Your task to perform on an android device: toggle translation in the chrome app Image 0: 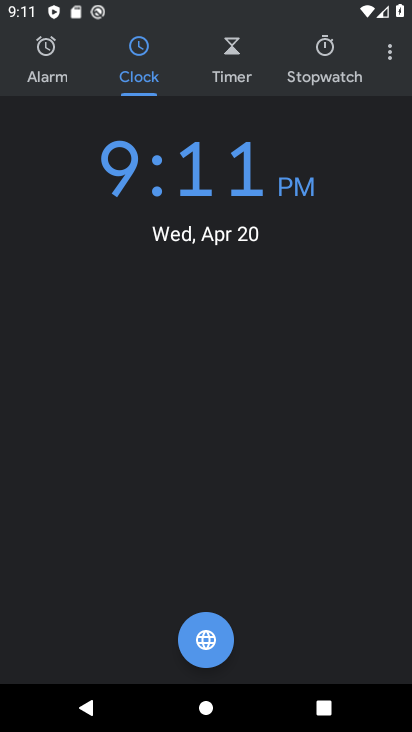
Step 0: press home button
Your task to perform on an android device: toggle translation in the chrome app Image 1: 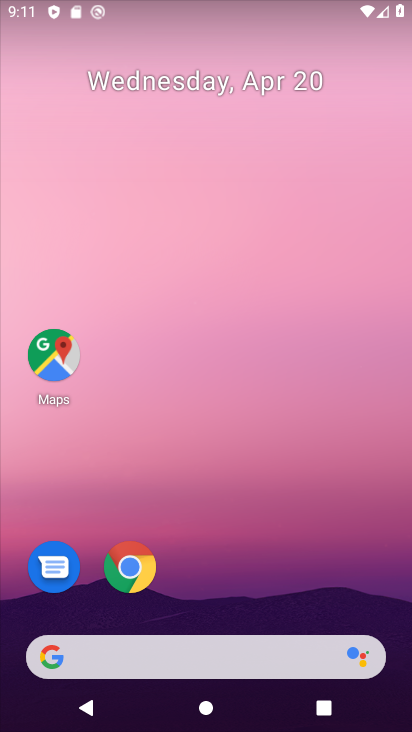
Step 1: drag from (309, 584) to (335, 141)
Your task to perform on an android device: toggle translation in the chrome app Image 2: 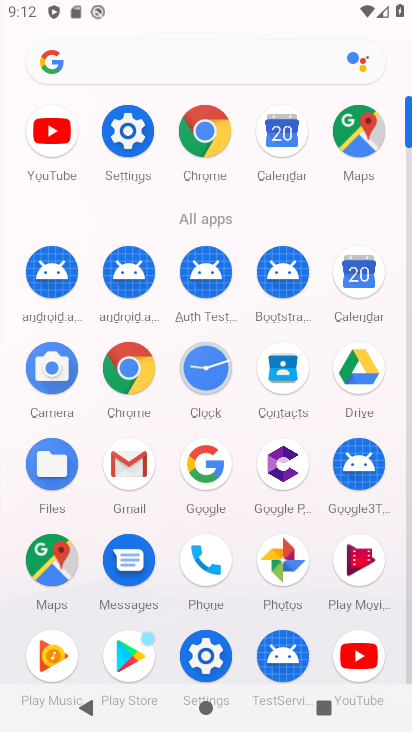
Step 2: click (136, 384)
Your task to perform on an android device: toggle translation in the chrome app Image 3: 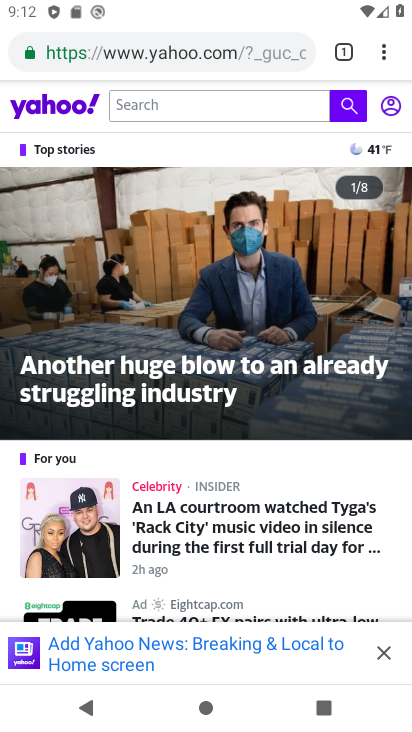
Step 3: click (385, 53)
Your task to perform on an android device: toggle translation in the chrome app Image 4: 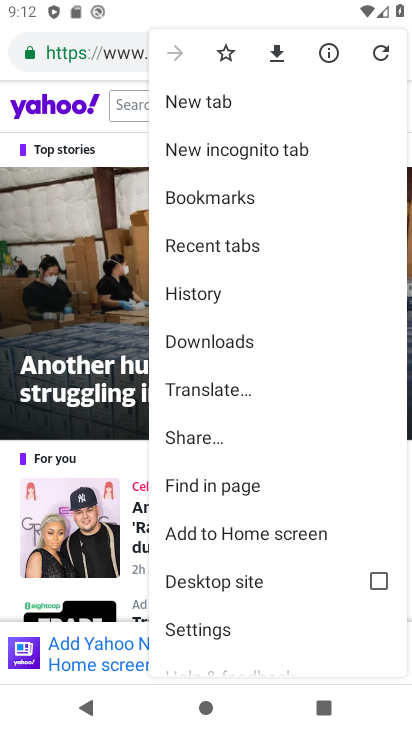
Step 4: click (228, 627)
Your task to perform on an android device: toggle translation in the chrome app Image 5: 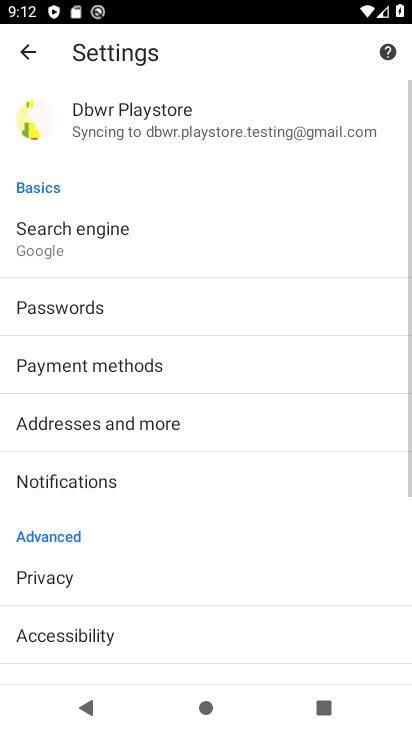
Step 5: drag from (262, 591) to (271, 445)
Your task to perform on an android device: toggle translation in the chrome app Image 6: 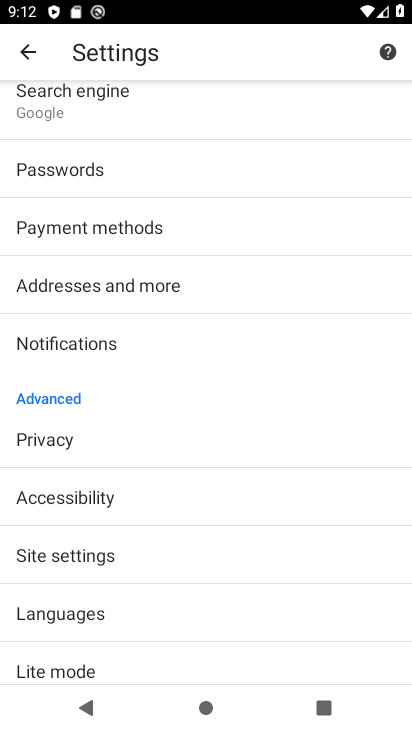
Step 6: drag from (309, 612) to (332, 471)
Your task to perform on an android device: toggle translation in the chrome app Image 7: 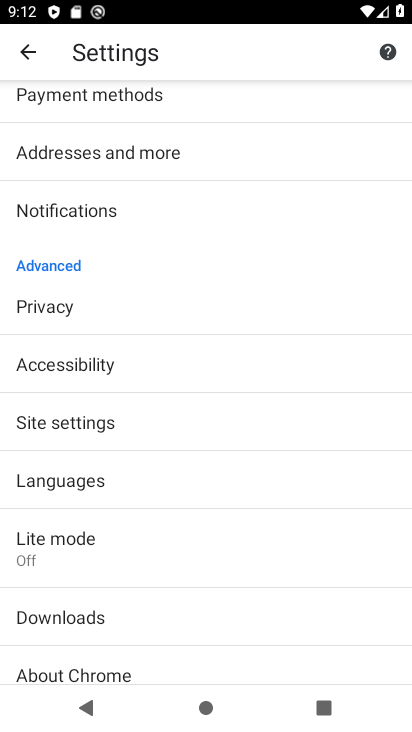
Step 7: drag from (336, 613) to (338, 490)
Your task to perform on an android device: toggle translation in the chrome app Image 8: 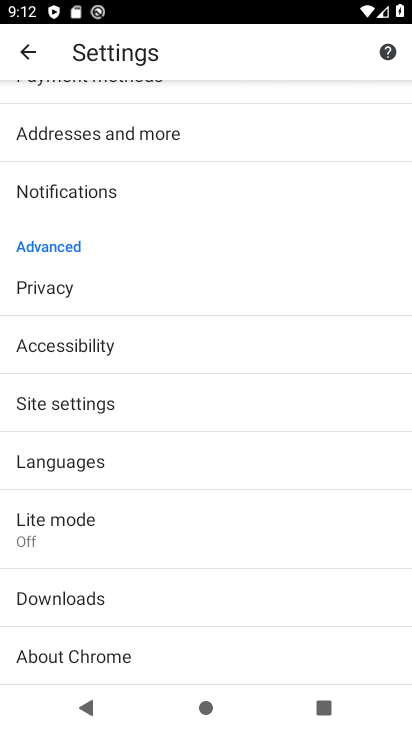
Step 8: drag from (356, 339) to (359, 501)
Your task to perform on an android device: toggle translation in the chrome app Image 9: 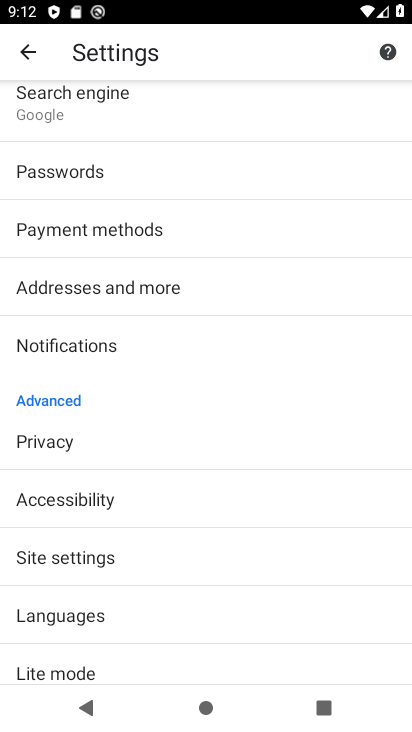
Step 9: drag from (344, 264) to (343, 436)
Your task to perform on an android device: toggle translation in the chrome app Image 10: 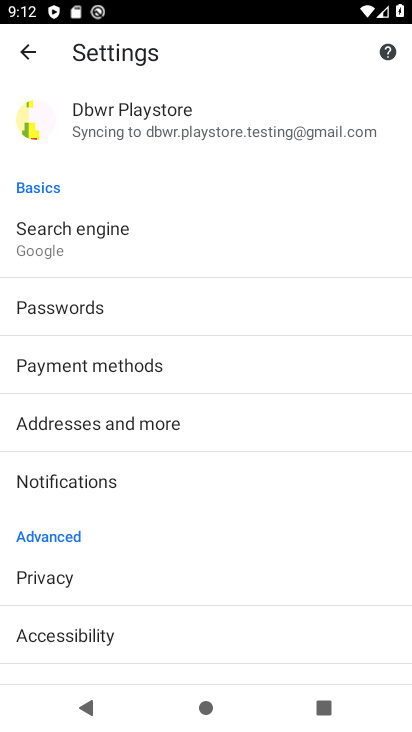
Step 10: drag from (297, 562) to (296, 415)
Your task to perform on an android device: toggle translation in the chrome app Image 11: 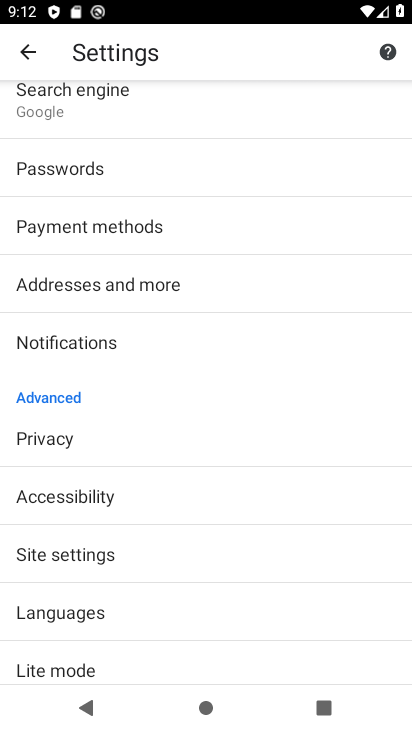
Step 11: drag from (285, 595) to (296, 445)
Your task to perform on an android device: toggle translation in the chrome app Image 12: 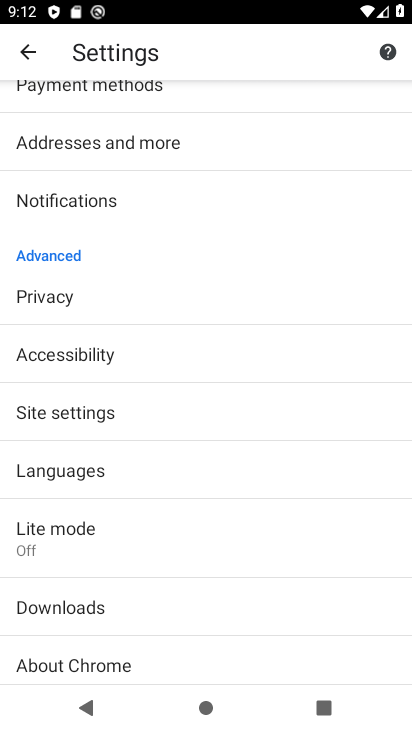
Step 12: click (282, 462)
Your task to perform on an android device: toggle translation in the chrome app Image 13: 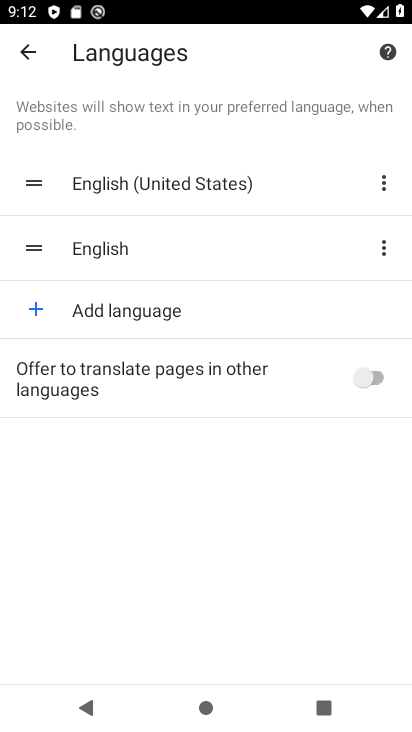
Step 13: click (374, 376)
Your task to perform on an android device: toggle translation in the chrome app Image 14: 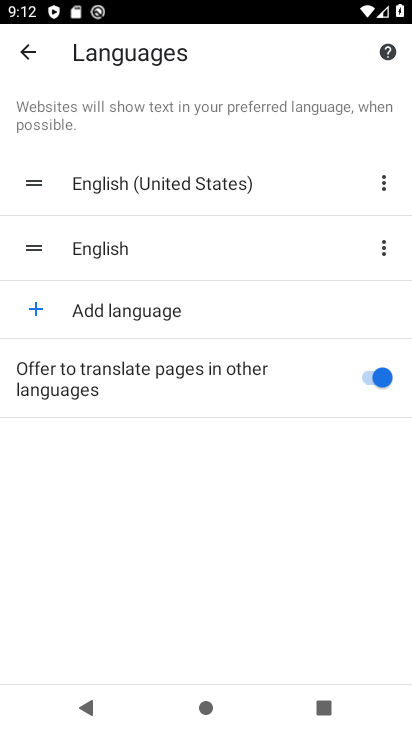
Step 14: task complete